Your task to perform on an android device: empty trash in the gmail app Image 0: 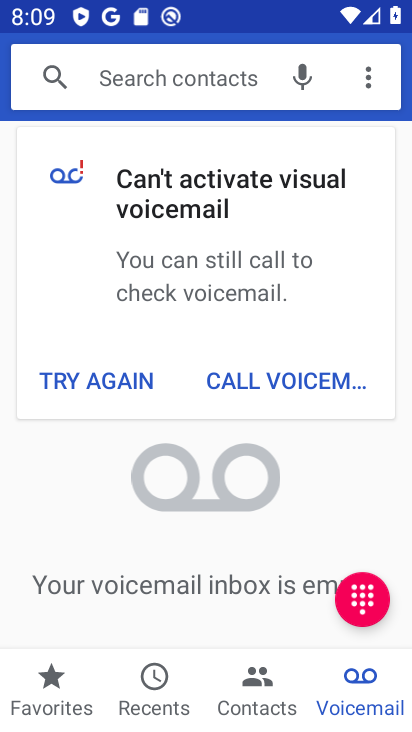
Step 0: press home button
Your task to perform on an android device: empty trash in the gmail app Image 1: 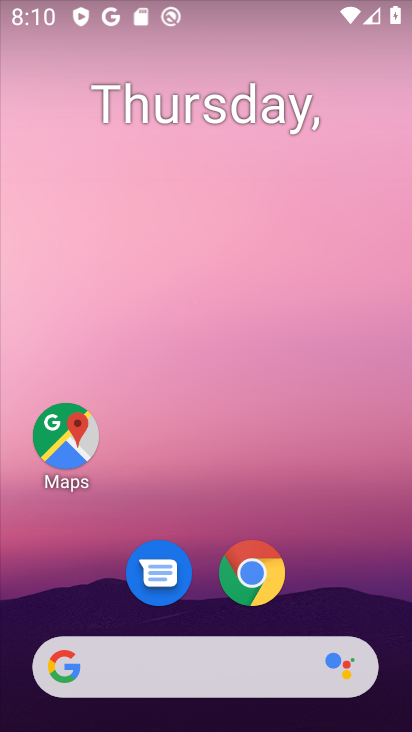
Step 1: drag from (379, 572) to (355, 136)
Your task to perform on an android device: empty trash in the gmail app Image 2: 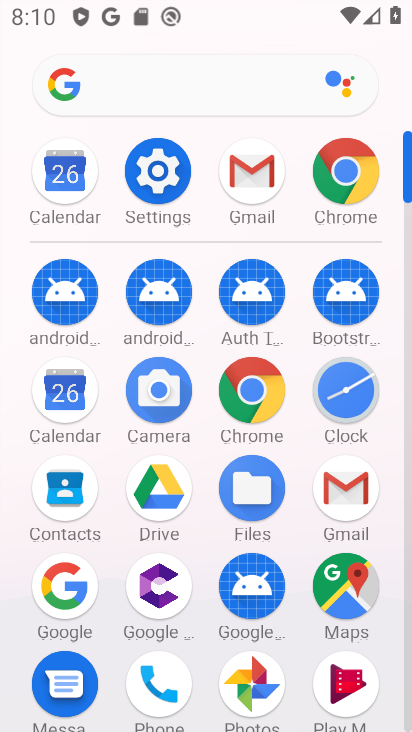
Step 2: click (332, 491)
Your task to perform on an android device: empty trash in the gmail app Image 3: 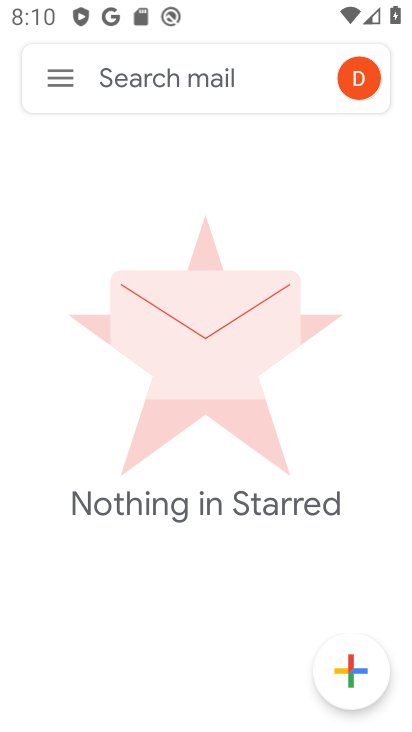
Step 3: click (71, 88)
Your task to perform on an android device: empty trash in the gmail app Image 4: 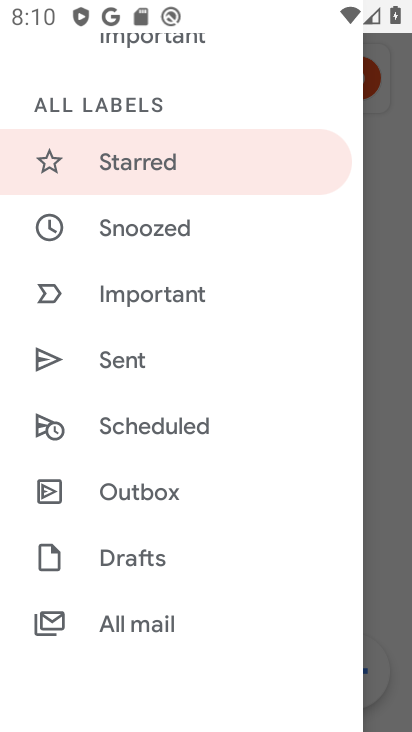
Step 4: drag from (178, 562) to (203, 272)
Your task to perform on an android device: empty trash in the gmail app Image 5: 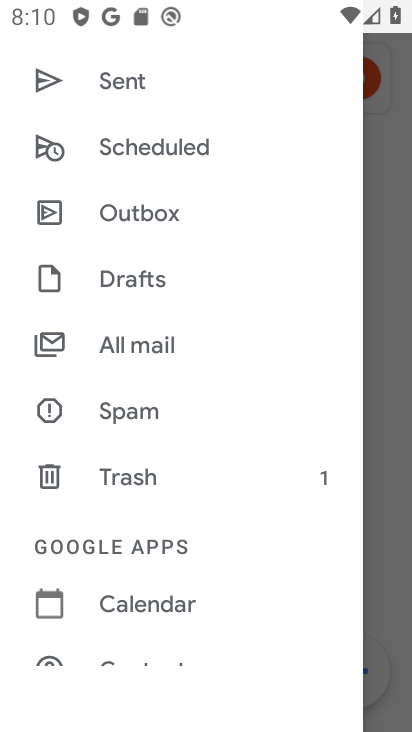
Step 5: click (182, 484)
Your task to perform on an android device: empty trash in the gmail app Image 6: 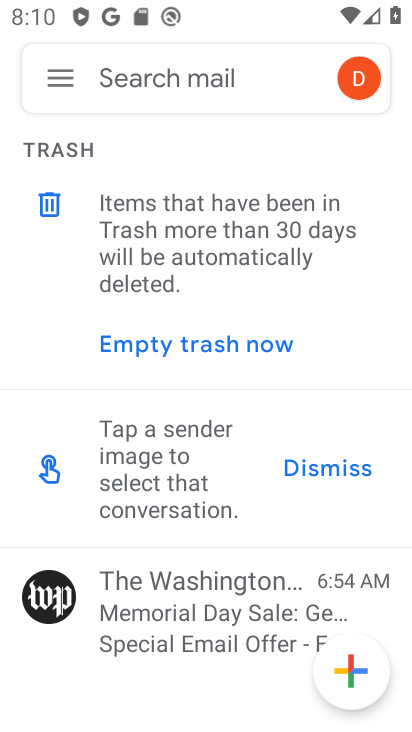
Step 6: click (208, 352)
Your task to perform on an android device: empty trash in the gmail app Image 7: 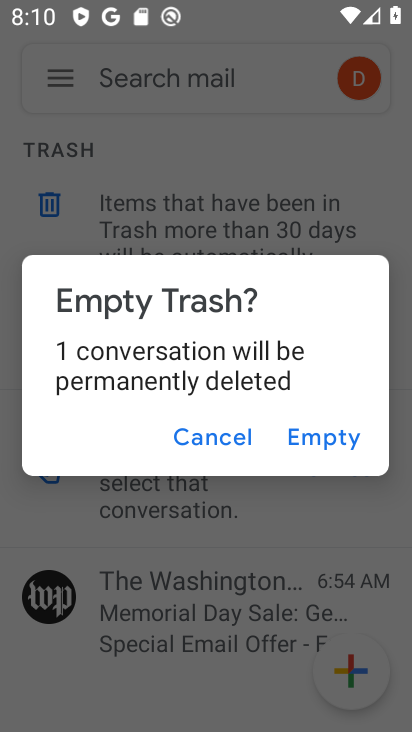
Step 7: click (300, 430)
Your task to perform on an android device: empty trash in the gmail app Image 8: 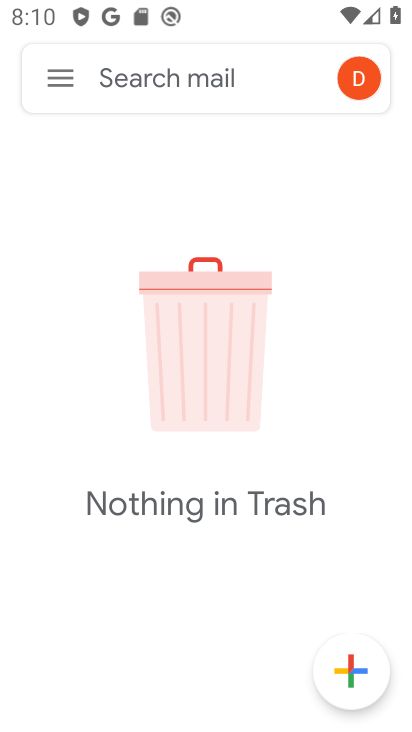
Step 8: task complete